Your task to perform on an android device: change notification settings in the gmail app Image 0: 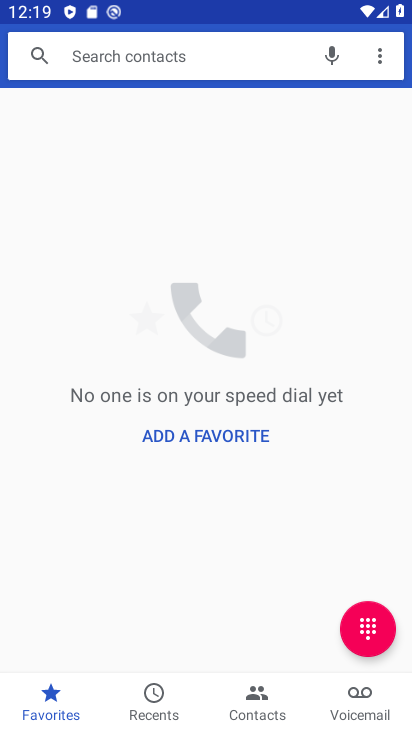
Step 0: press back button
Your task to perform on an android device: change notification settings in the gmail app Image 1: 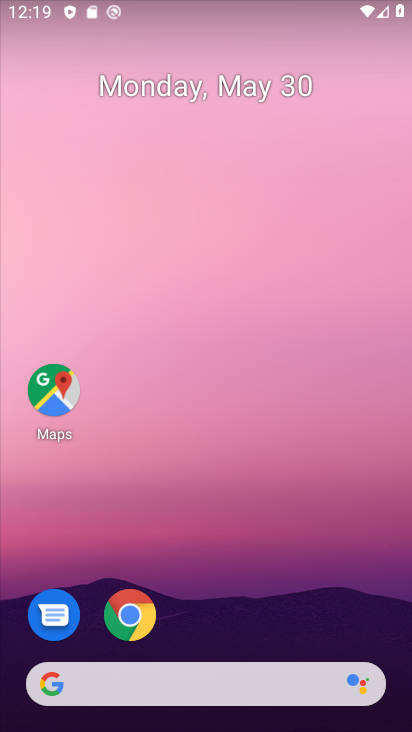
Step 1: drag from (214, 626) to (220, 66)
Your task to perform on an android device: change notification settings in the gmail app Image 2: 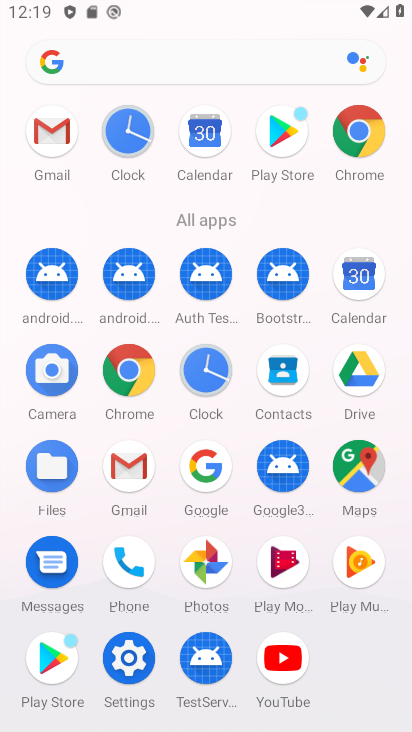
Step 2: click (54, 137)
Your task to perform on an android device: change notification settings in the gmail app Image 3: 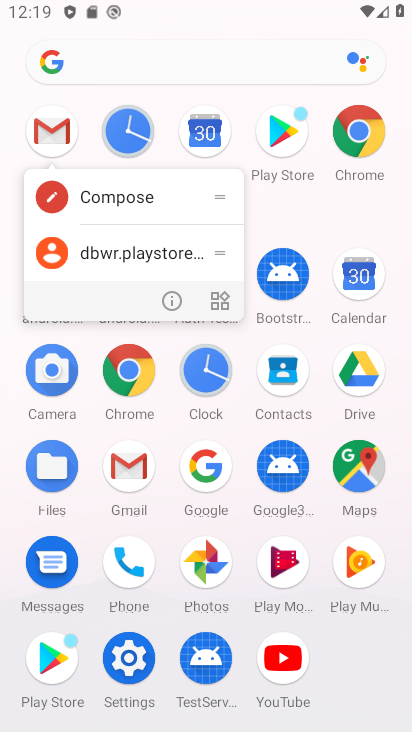
Step 3: click (172, 301)
Your task to perform on an android device: change notification settings in the gmail app Image 4: 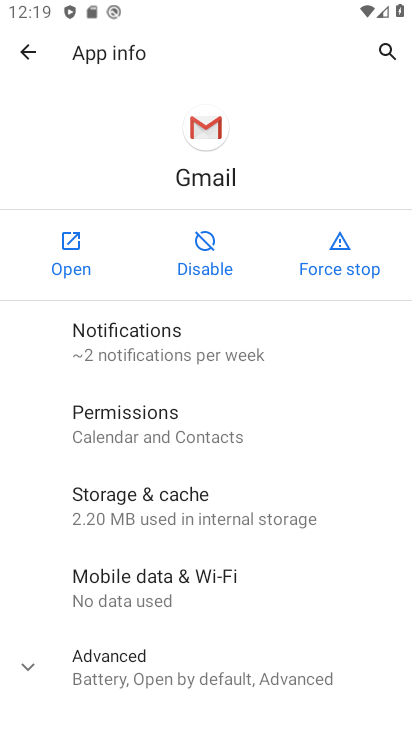
Step 4: click (105, 344)
Your task to perform on an android device: change notification settings in the gmail app Image 5: 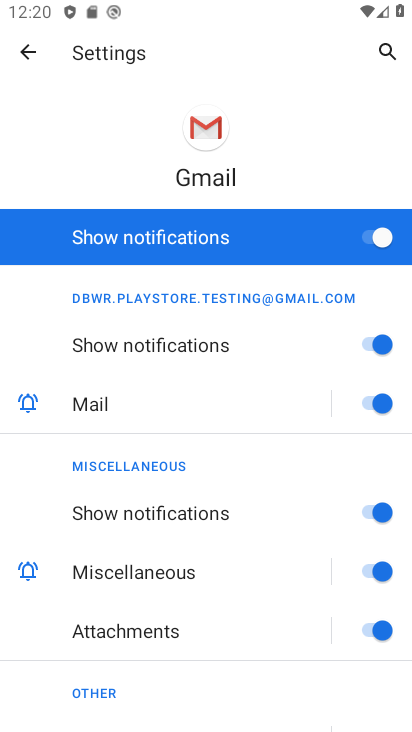
Step 5: click (374, 344)
Your task to perform on an android device: change notification settings in the gmail app Image 6: 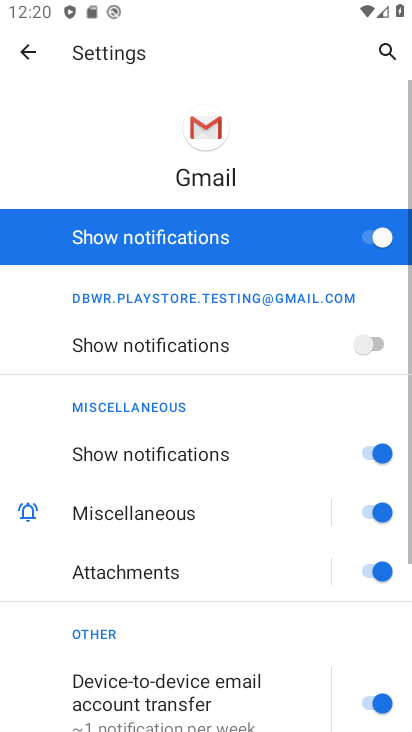
Step 6: task complete